Your task to perform on an android device: toggle location history Image 0: 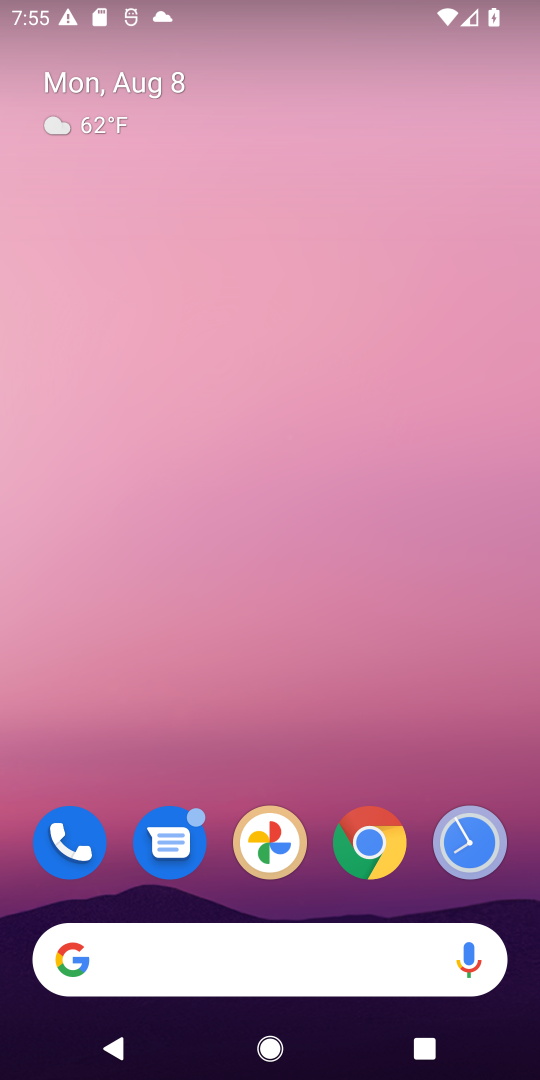
Step 0: drag from (321, 717) to (314, 7)
Your task to perform on an android device: toggle location history Image 1: 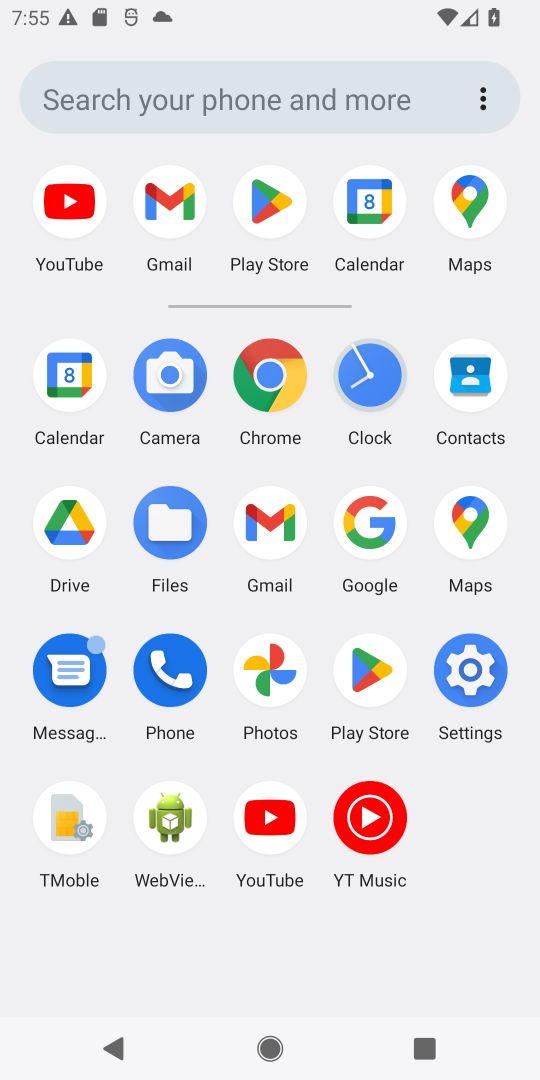
Step 1: click (473, 674)
Your task to perform on an android device: toggle location history Image 2: 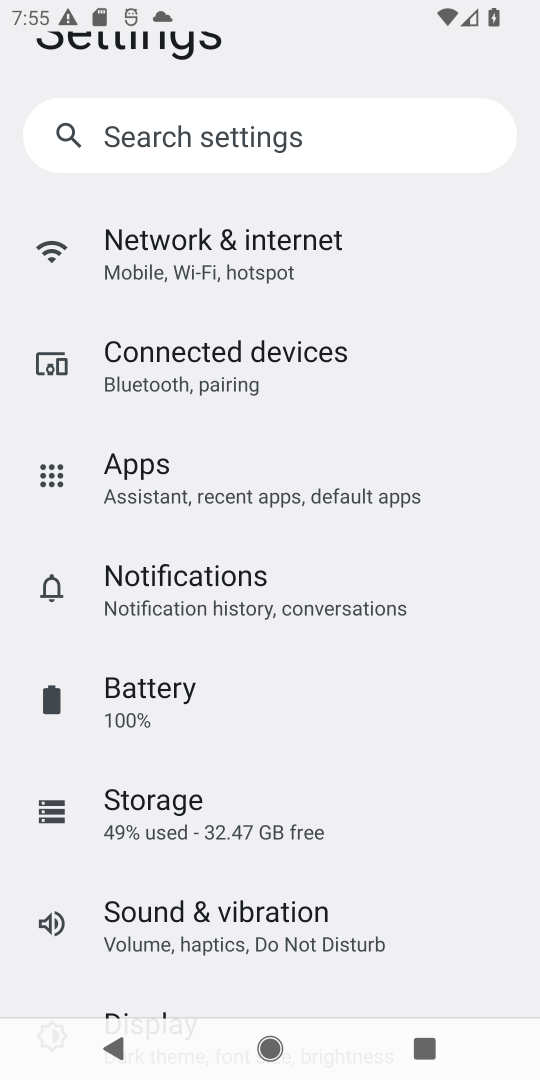
Step 2: drag from (324, 744) to (351, 114)
Your task to perform on an android device: toggle location history Image 3: 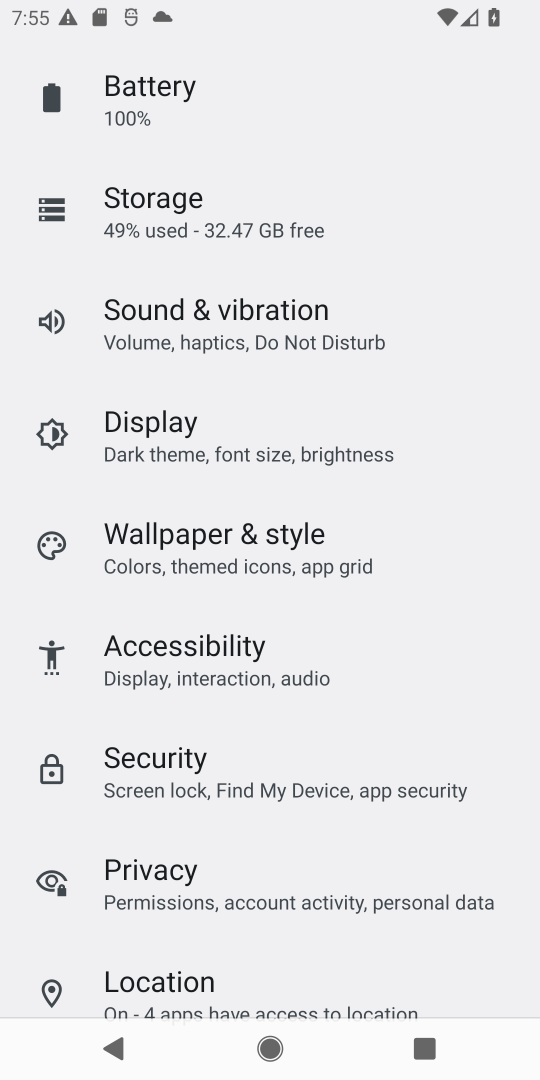
Step 3: click (274, 984)
Your task to perform on an android device: toggle location history Image 4: 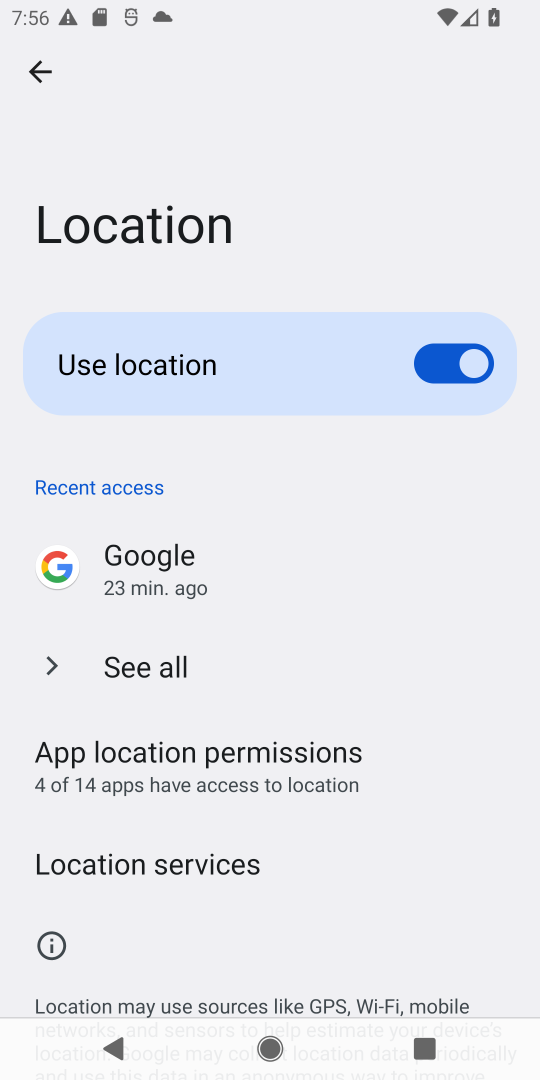
Step 4: drag from (338, 740) to (367, 342)
Your task to perform on an android device: toggle location history Image 5: 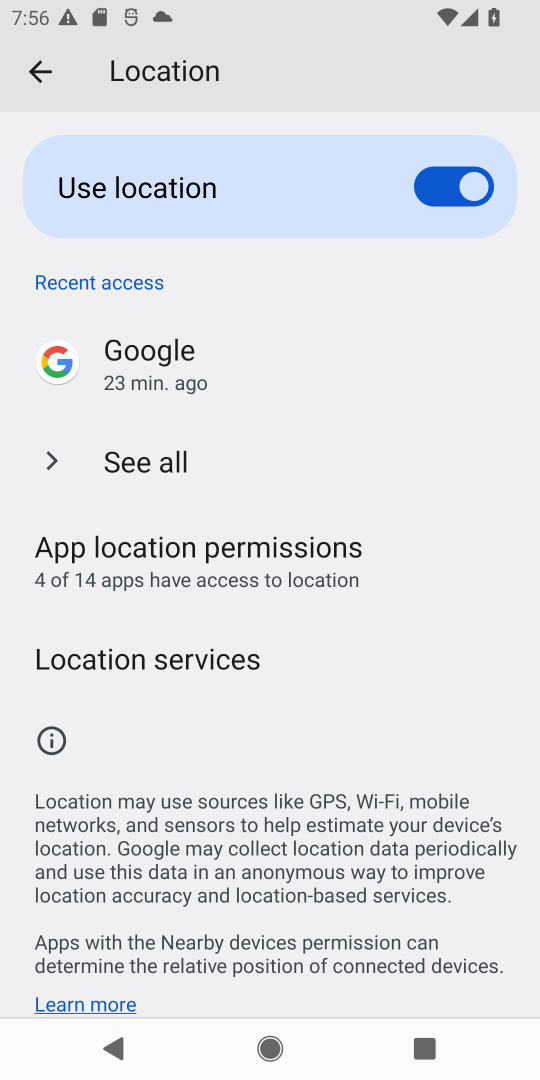
Step 5: click (213, 659)
Your task to perform on an android device: toggle location history Image 6: 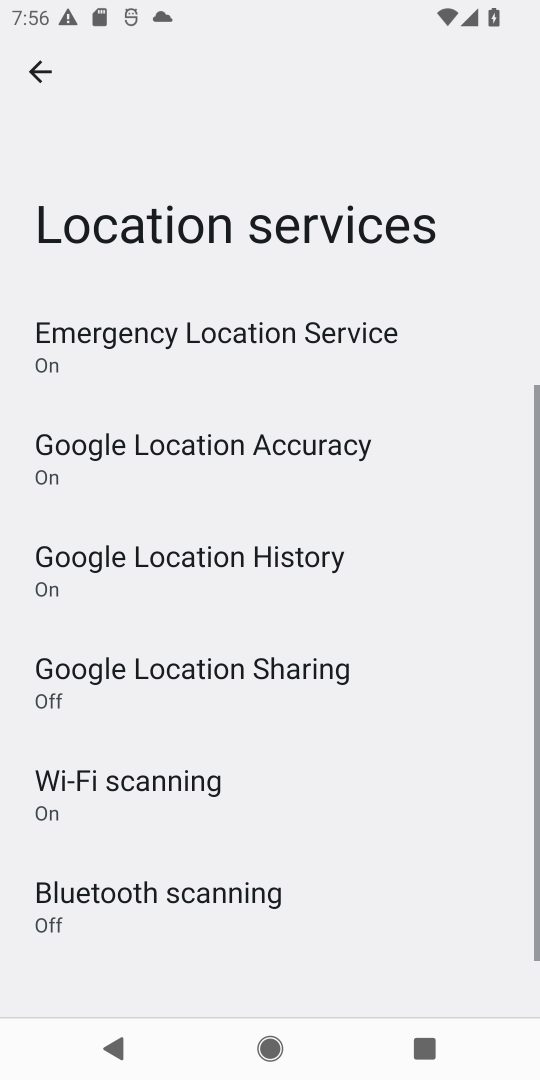
Step 6: click (271, 551)
Your task to perform on an android device: toggle location history Image 7: 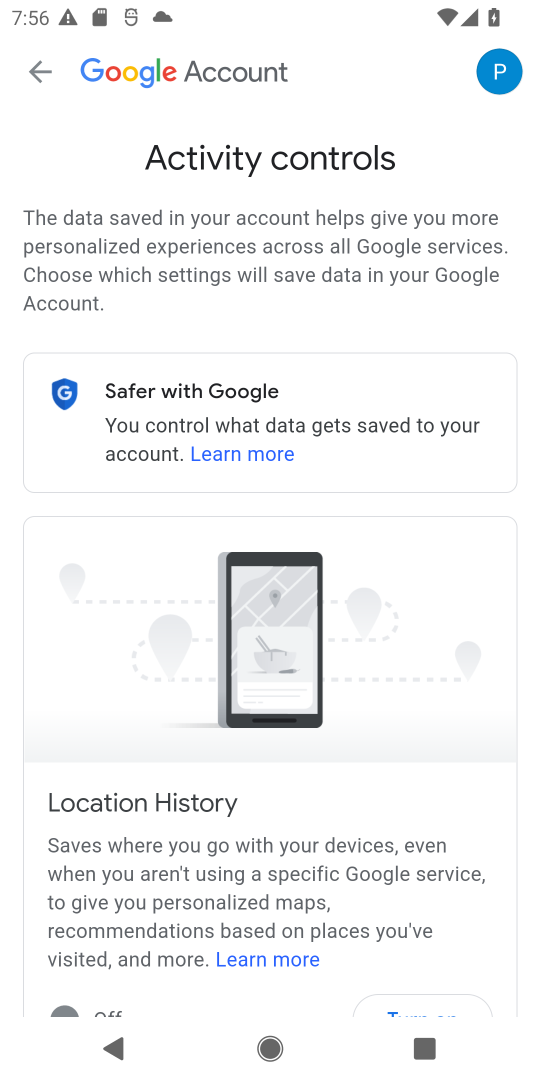
Step 7: drag from (372, 668) to (386, 246)
Your task to perform on an android device: toggle location history Image 8: 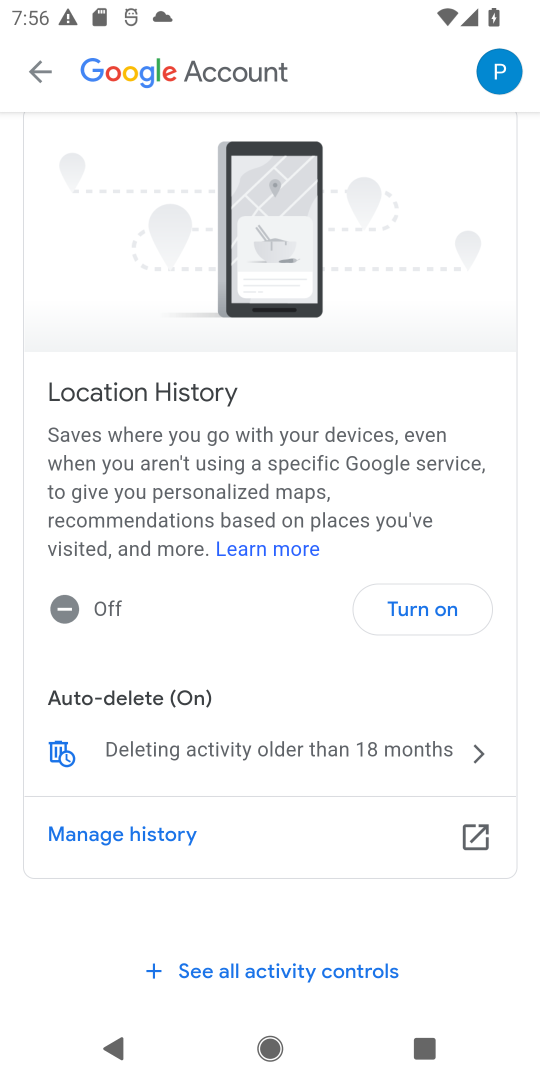
Step 8: click (438, 608)
Your task to perform on an android device: toggle location history Image 9: 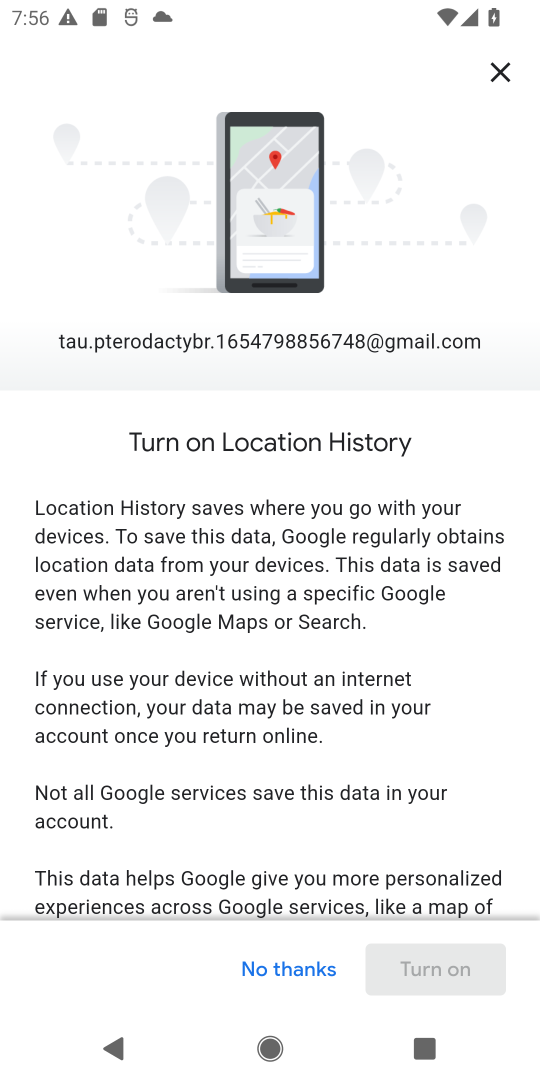
Step 9: drag from (364, 799) to (370, 211)
Your task to perform on an android device: toggle location history Image 10: 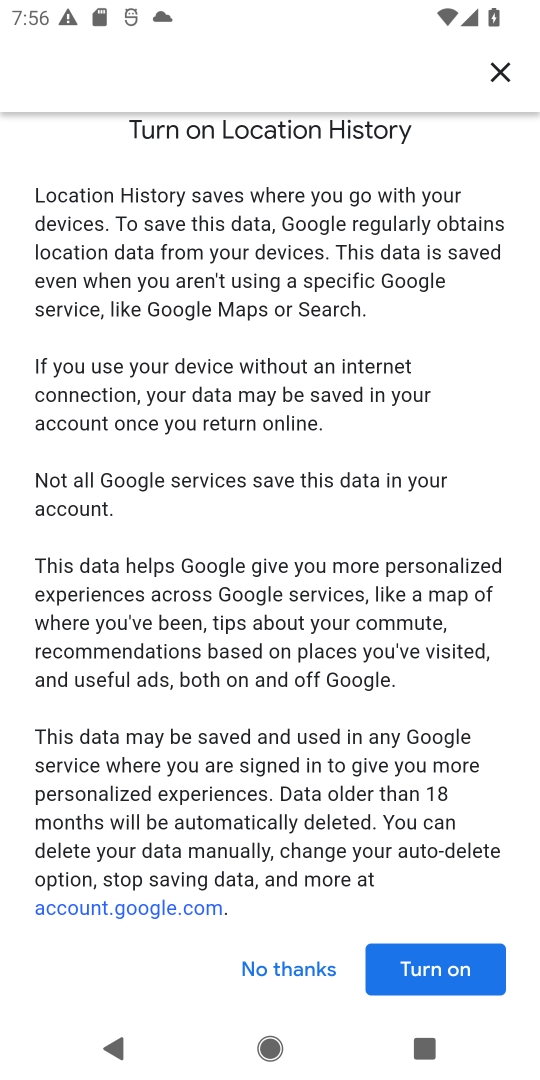
Step 10: click (490, 986)
Your task to perform on an android device: toggle location history Image 11: 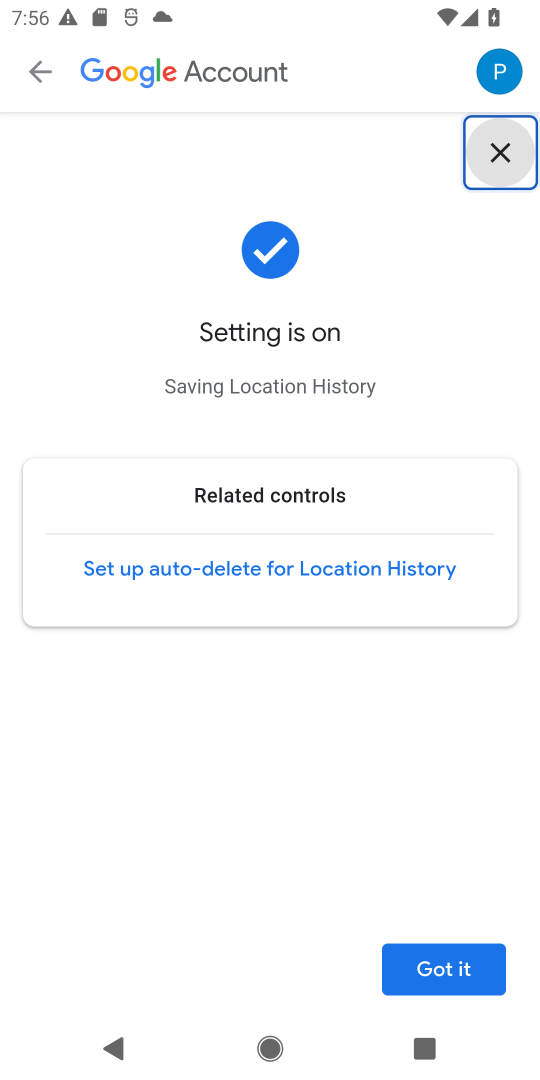
Step 11: click (486, 977)
Your task to perform on an android device: toggle location history Image 12: 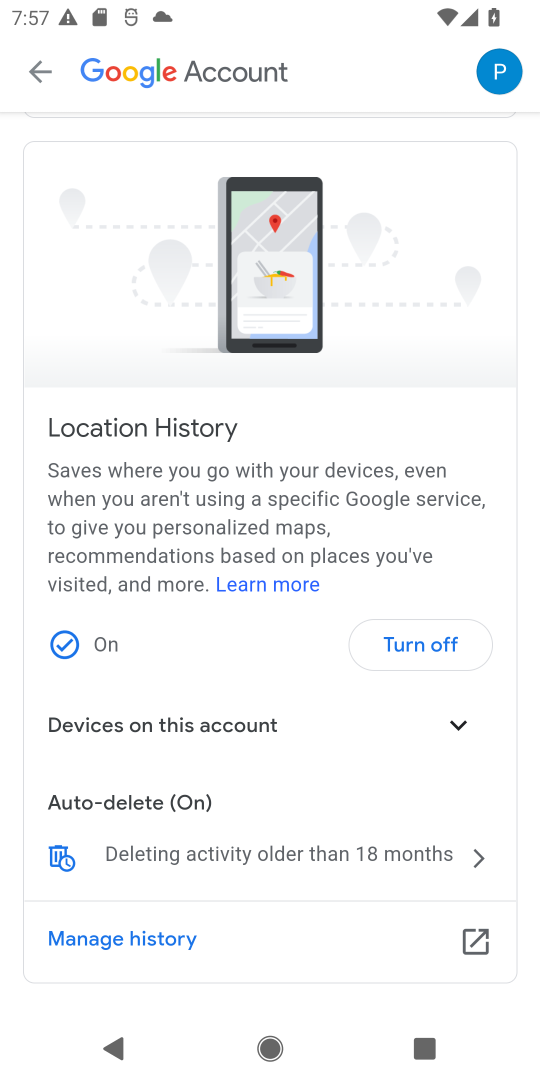
Step 12: task complete